Your task to perform on an android device: Search for "razer blade" on costco, select the first entry, and add it to the cart. Image 0: 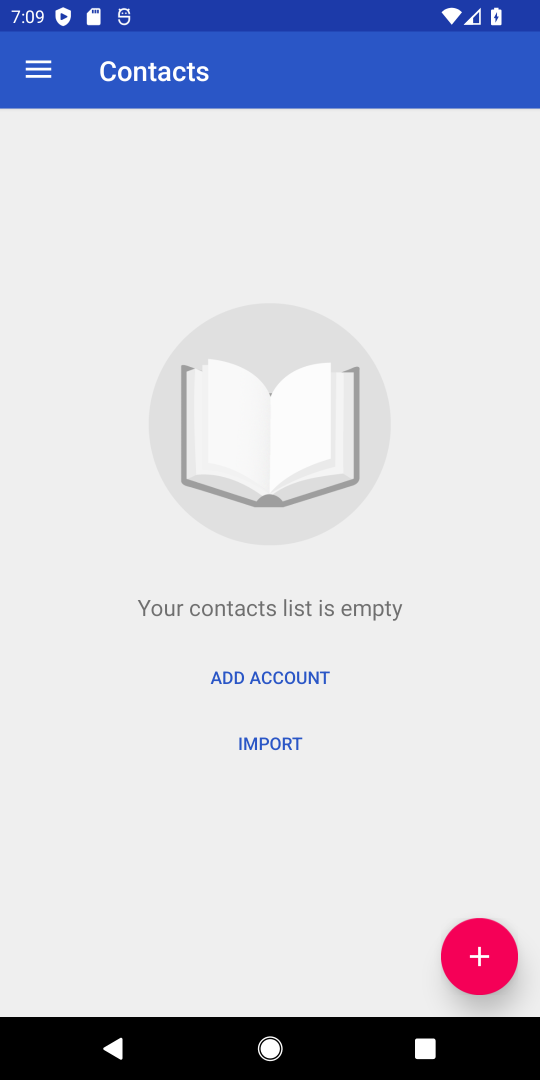
Step 0: press home button
Your task to perform on an android device: Search for "razer blade" on costco, select the first entry, and add it to the cart. Image 1: 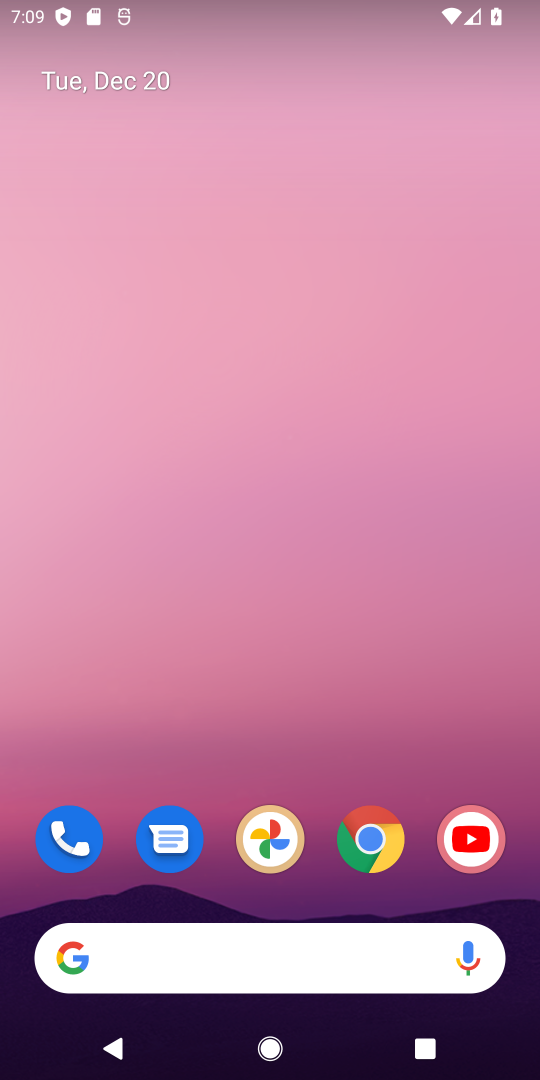
Step 1: click (268, 960)
Your task to perform on an android device: Search for "razer blade" on costco, select the first entry, and add it to the cart. Image 2: 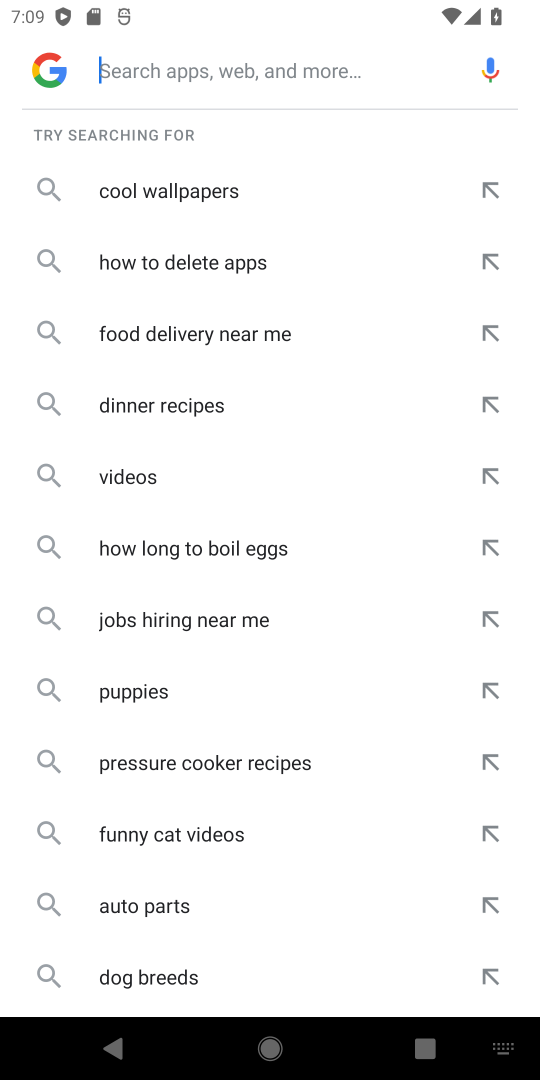
Step 2: type "razer blade"
Your task to perform on an android device: Search for "razer blade" on costco, select the first entry, and add it to the cart. Image 3: 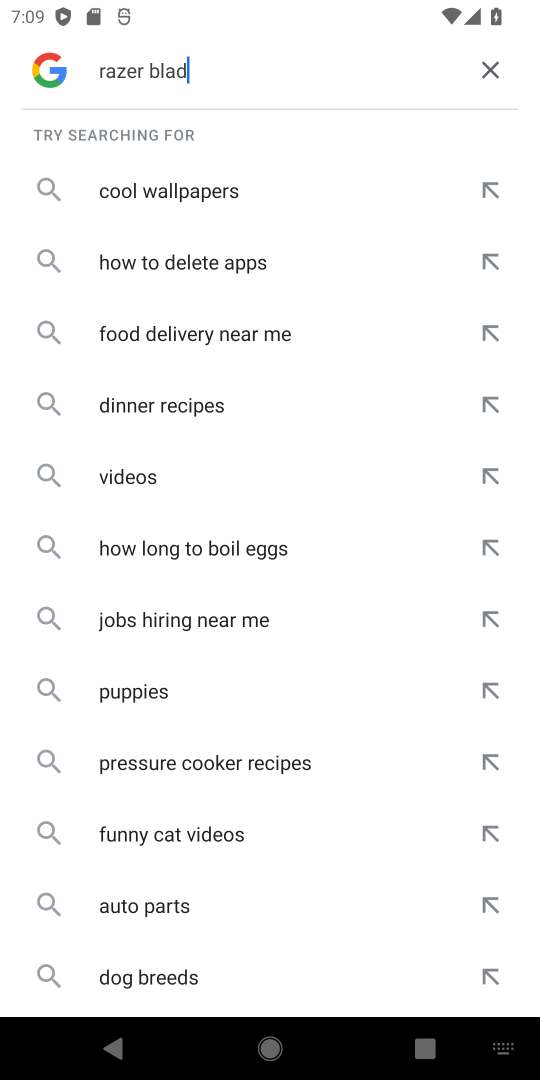
Step 3: type ""
Your task to perform on an android device: Search for "razer blade" on costco, select the first entry, and add it to the cart. Image 4: 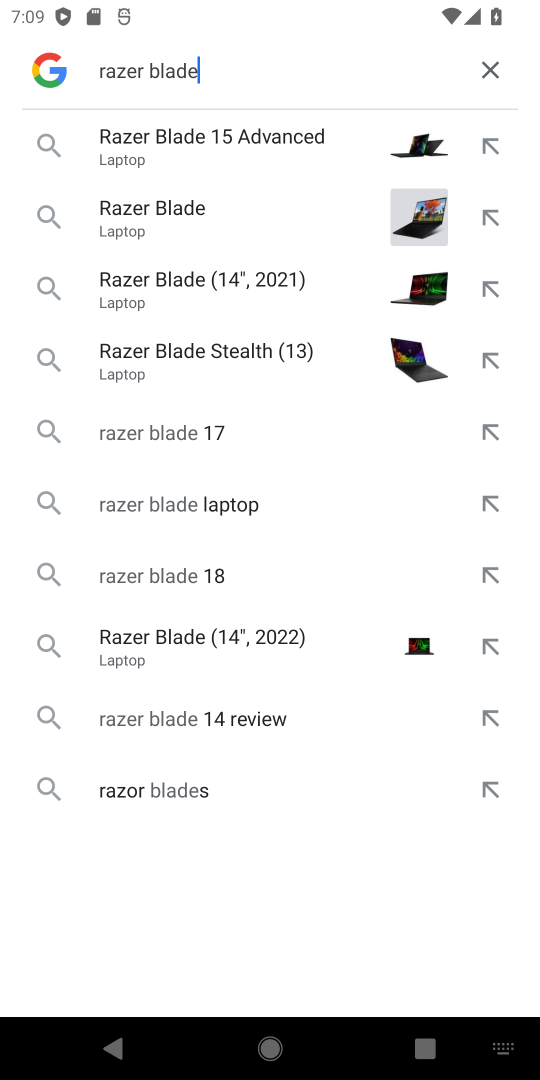
Step 4: click (129, 246)
Your task to perform on an android device: Search for "razer blade" on costco, select the first entry, and add it to the cart. Image 5: 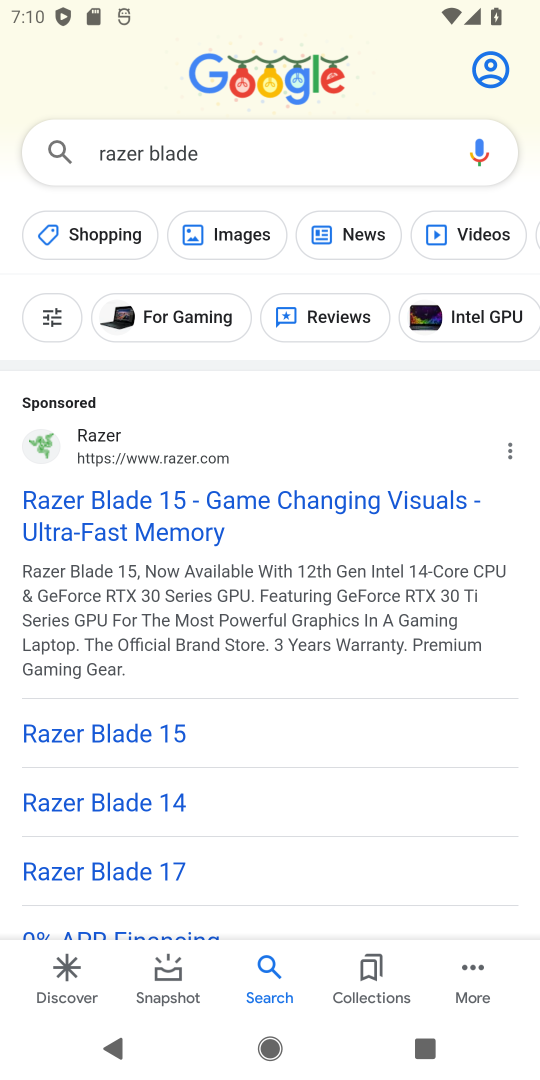
Step 5: click (315, 151)
Your task to perform on an android device: Search for "razer blade" on costco, select the first entry, and add it to the cart. Image 6: 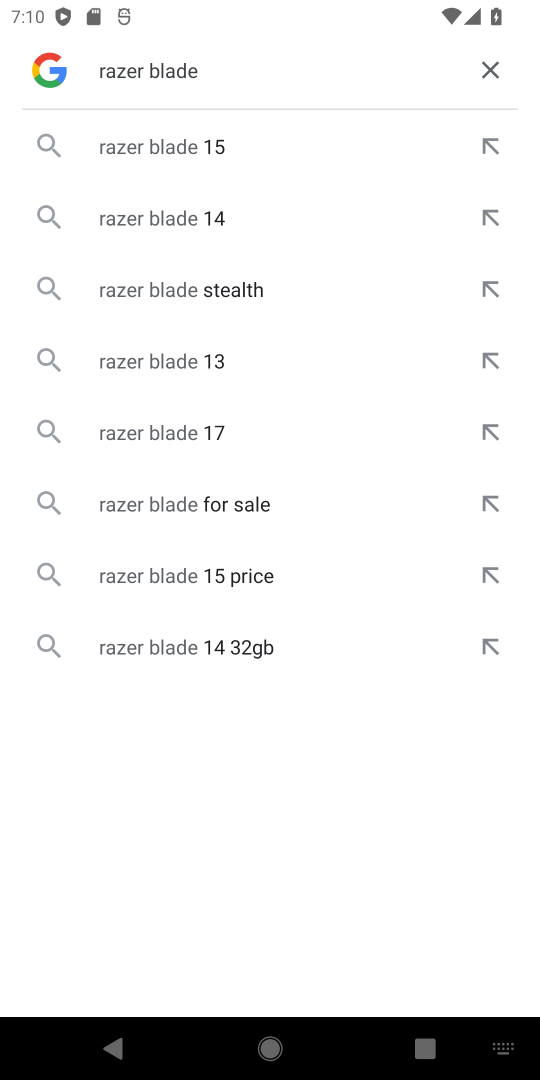
Step 6: click (490, 80)
Your task to perform on an android device: Search for "razer blade" on costco, select the first entry, and add it to the cart. Image 7: 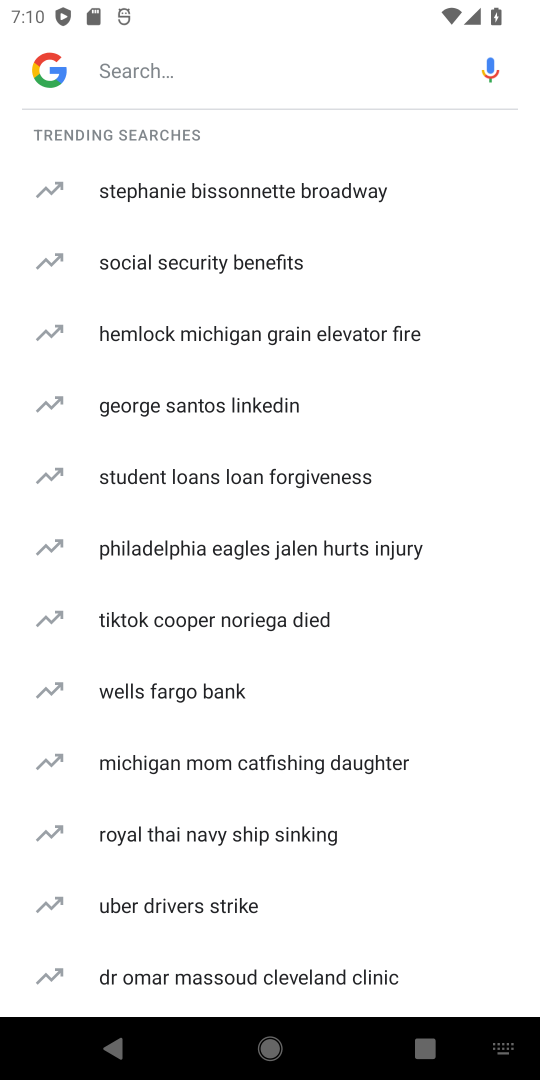
Step 7: type "costco"
Your task to perform on an android device: Search for "razer blade" on costco, select the first entry, and add it to the cart. Image 8: 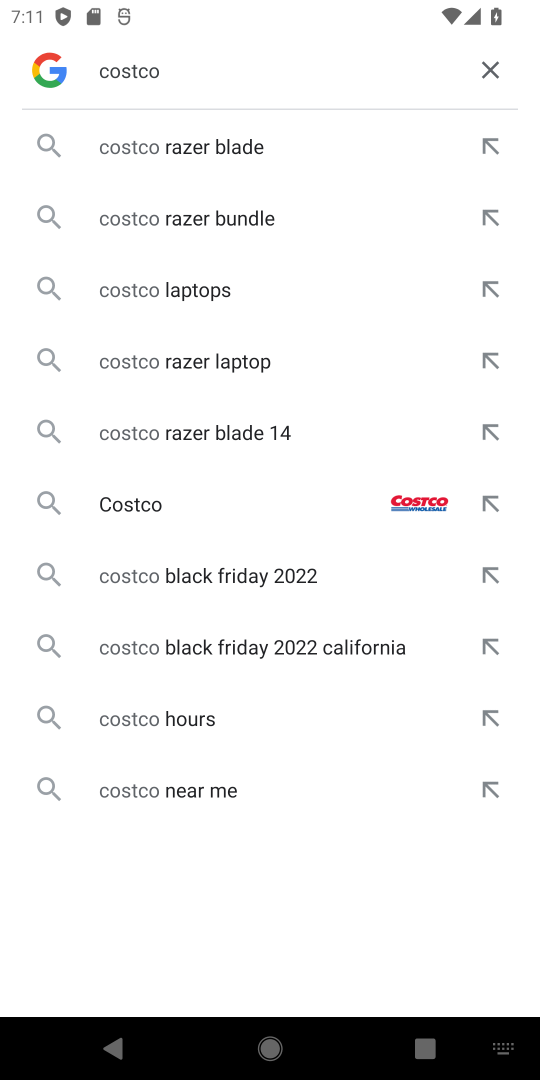
Step 8: click (193, 144)
Your task to perform on an android device: Search for "razer blade" on costco, select the first entry, and add it to the cart. Image 9: 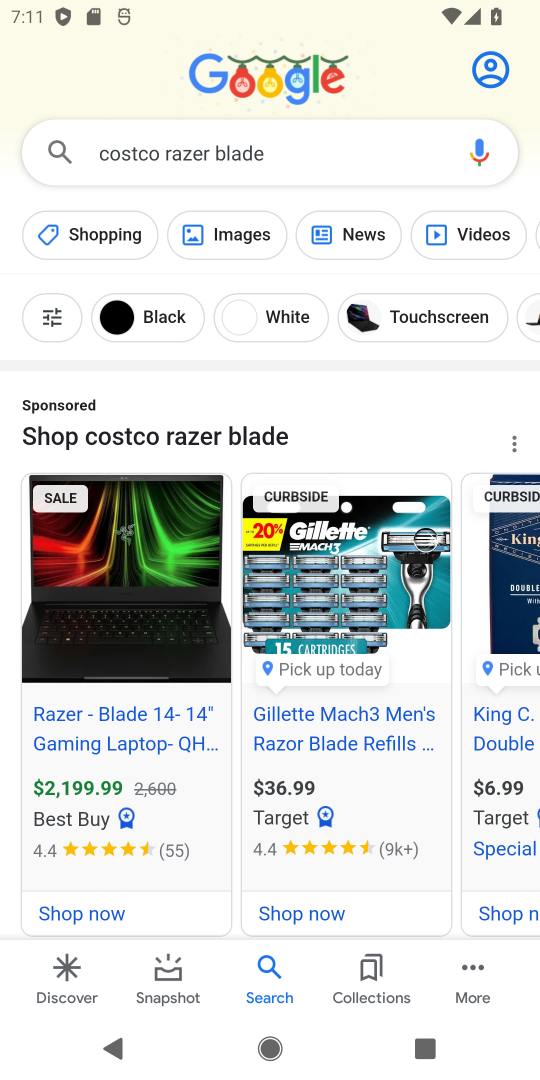
Step 9: drag from (245, 773) to (243, 547)
Your task to perform on an android device: Search for "razer blade" on costco, select the first entry, and add it to the cart. Image 10: 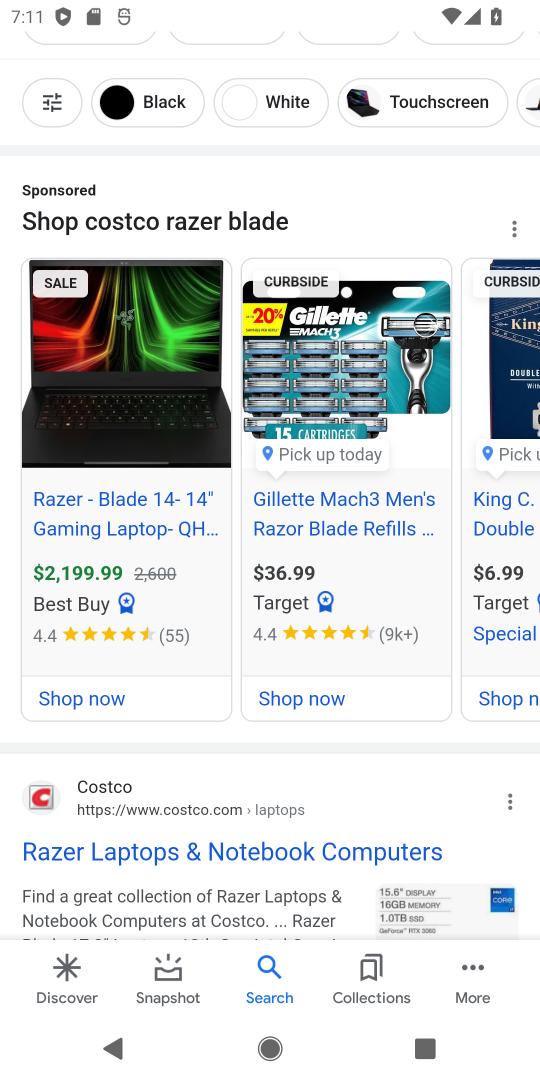
Step 10: drag from (235, 770) to (235, 504)
Your task to perform on an android device: Search for "razer blade" on costco, select the first entry, and add it to the cart. Image 11: 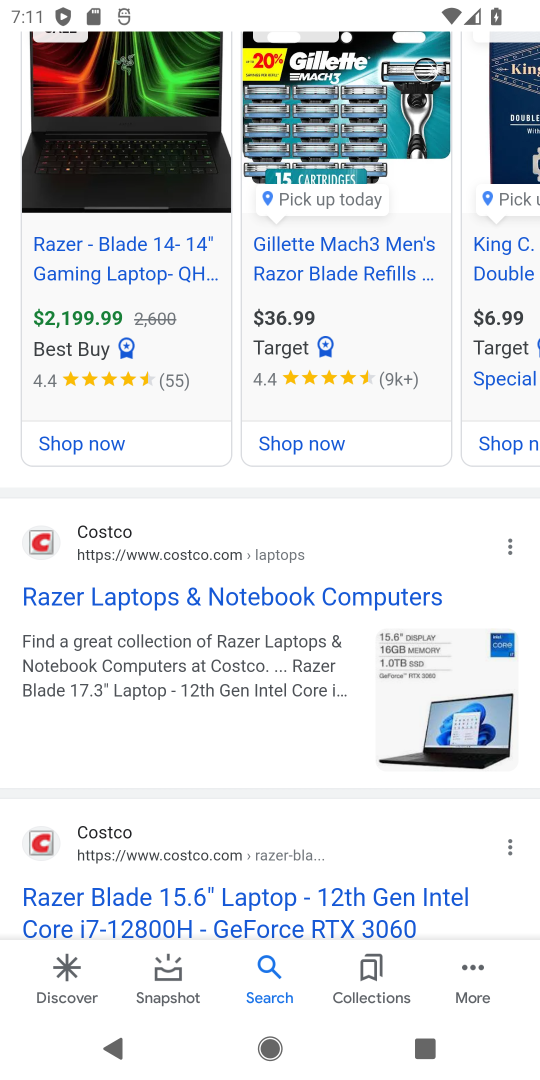
Step 11: click (235, 504)
Your task to perform on an android device: Search for "razer blade" on costco, select the first entry, and add it to the cart. Image 12: 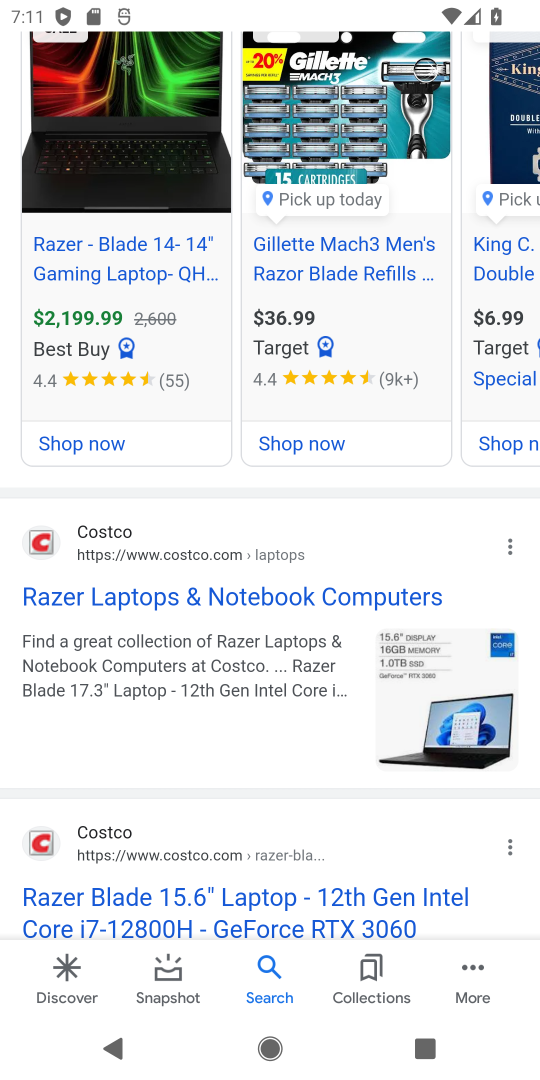
Step 12: click (112, 607)
Your task to perform on an android device: Search for "razer blade" on costco, select the first entry, and add it to the cart. Image 13: 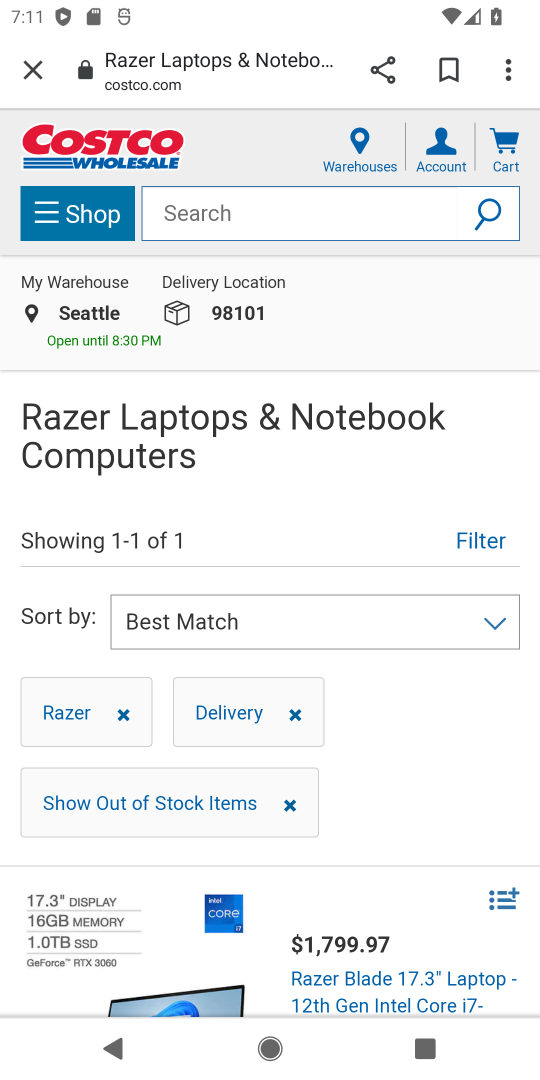
Step 13: drag from (248, 951) to (267, 653)
Your task to perform on an android device: Search for "razer blade" on costco, select the first entry, and add it to the cart. Image 14: 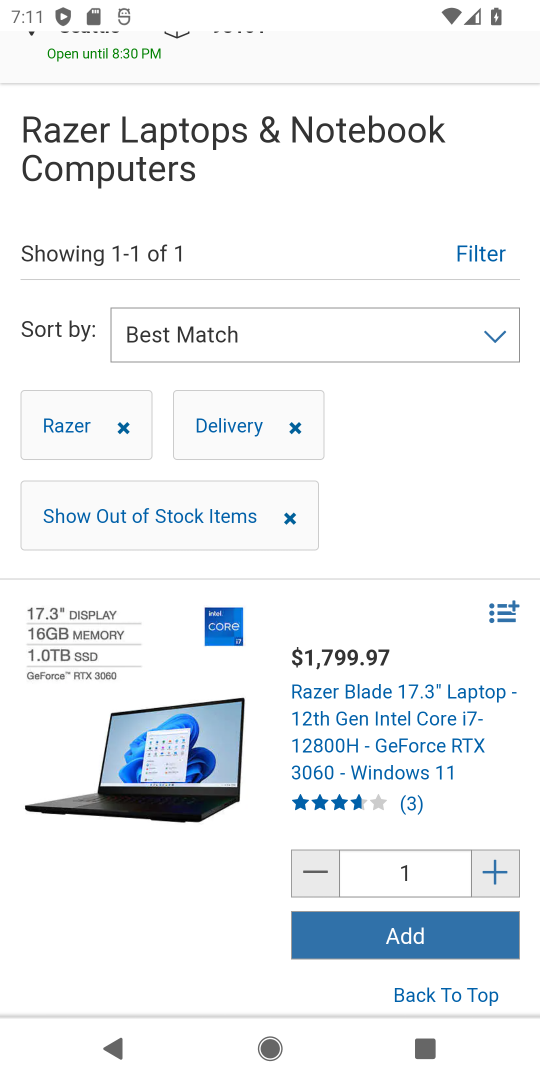
Step 14: click (400, 948)
Your task to perform on an android device: Search for "razer blade" on costco, select the first entry, and add it to the cart. Image 15: 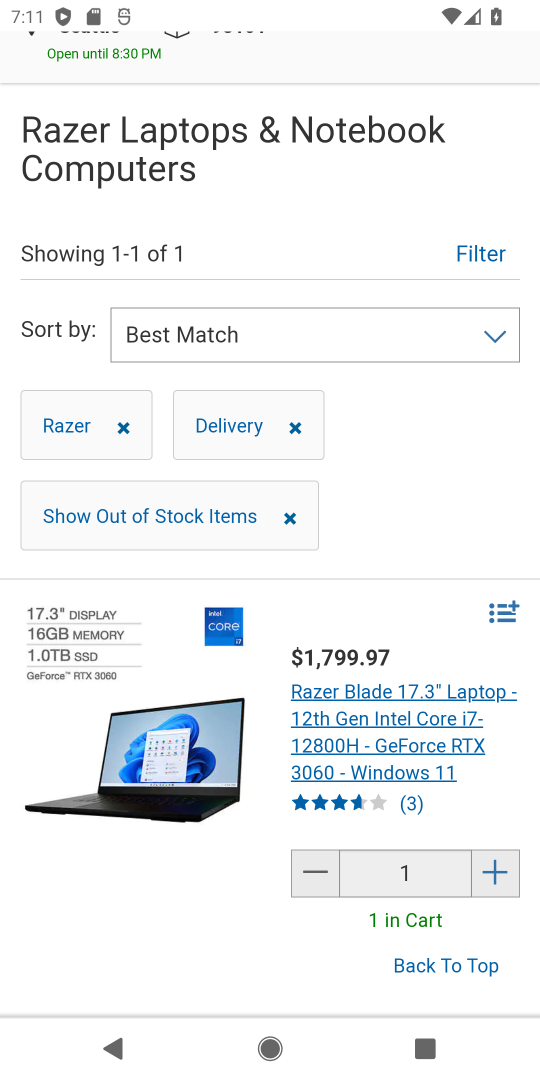
Step 15: task complete